Your task to perform on an android device: Do I have any events today? Image 0: 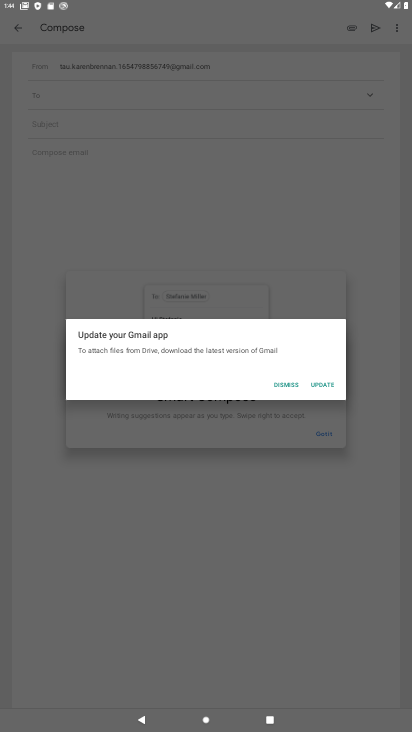
Step 0: press home button
Your task to perform on an android device: Do I have any events today? Image 1: 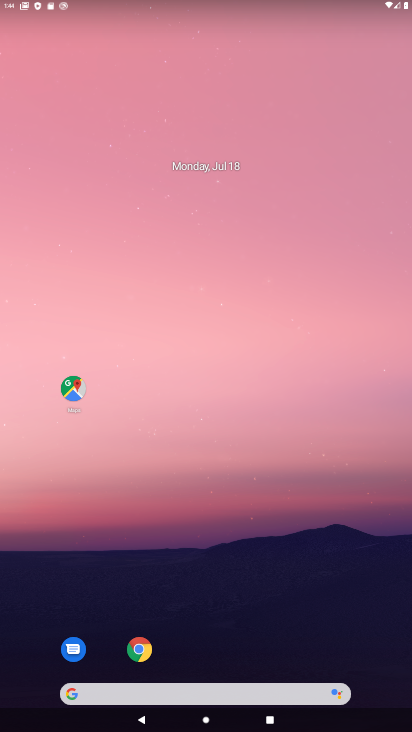
Step 1: drag from (241, 603) to (255, 53)
Your task to perform on an android device: Do I have any events today? Image 2: 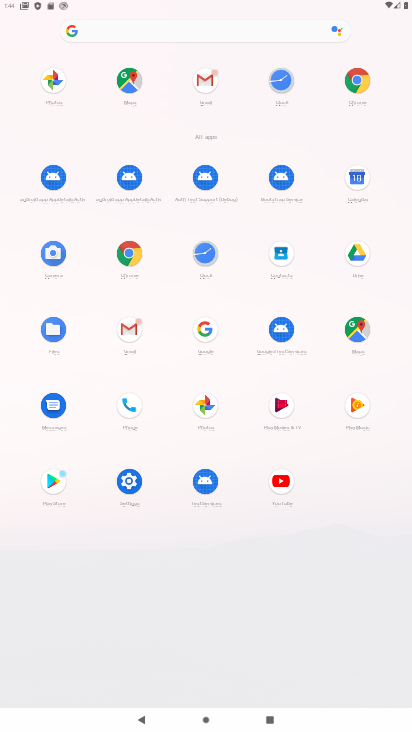
Step 2: click (364, 175)
Your task to perform on an android device: Do I have any events today? Image 3: 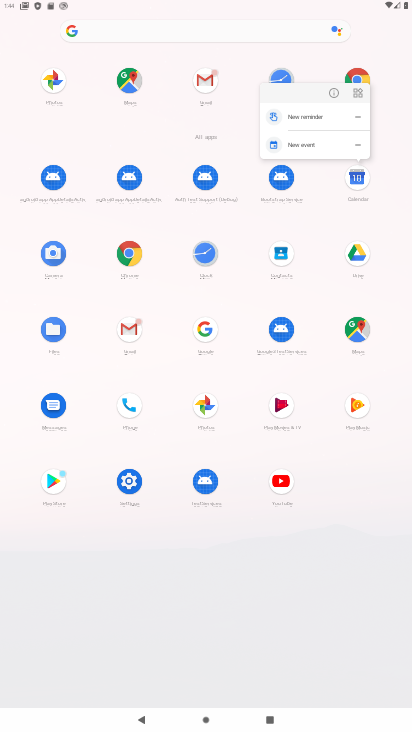
Step 3: click (364, 181)
Your task to perform on an android device: Do I have any events today? Image 4: 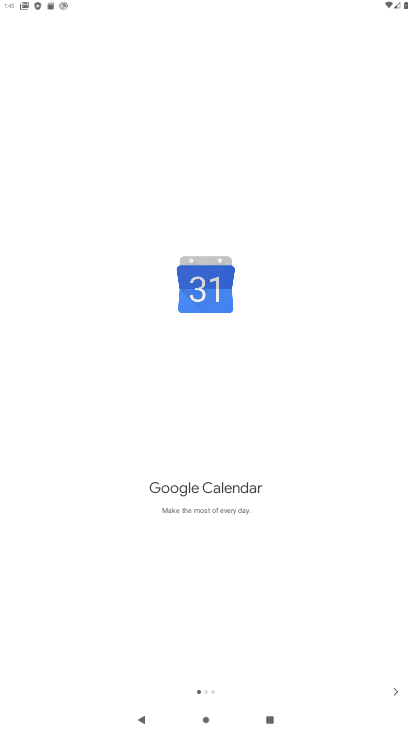
Step 4: click (397, 688)
Your task to perform on an android device: Do I have any events today? Image 5: 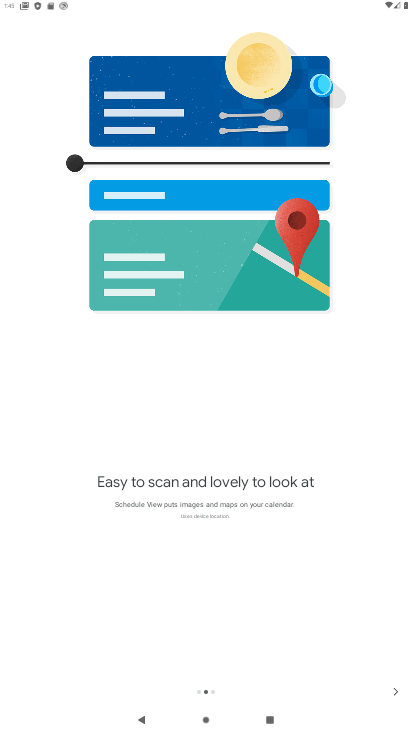
Step 5: click (397, 683)
Your task to perform on an android device: Do I have any events today? Image 6: 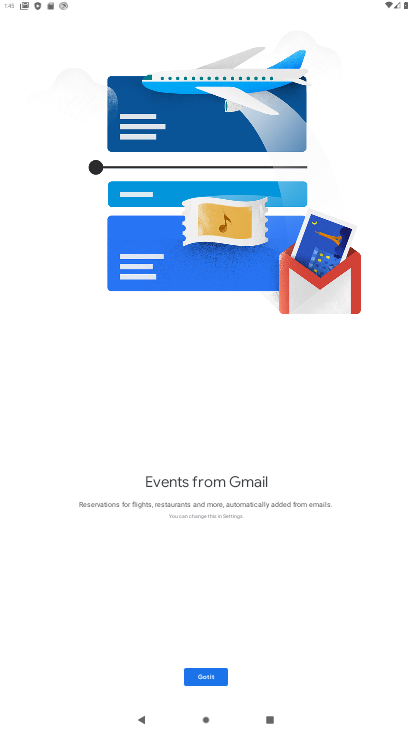
Step 6: click (196, 676)
Your task to perform on an android device: Do I have any events today? Image 7: 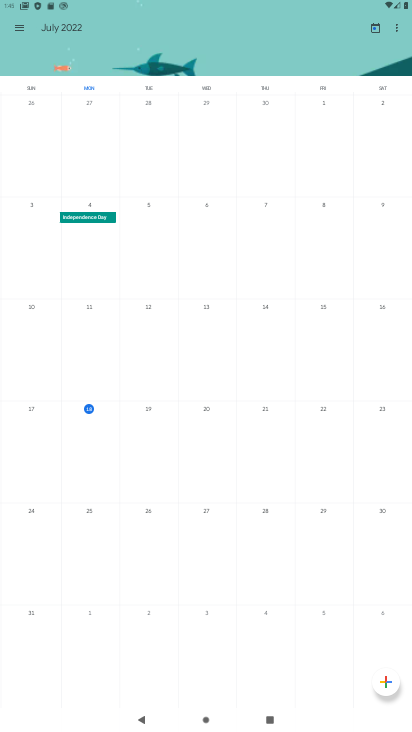
Step 7: task complete